Your task to perform on an android device: change keyboard looks Image 0: 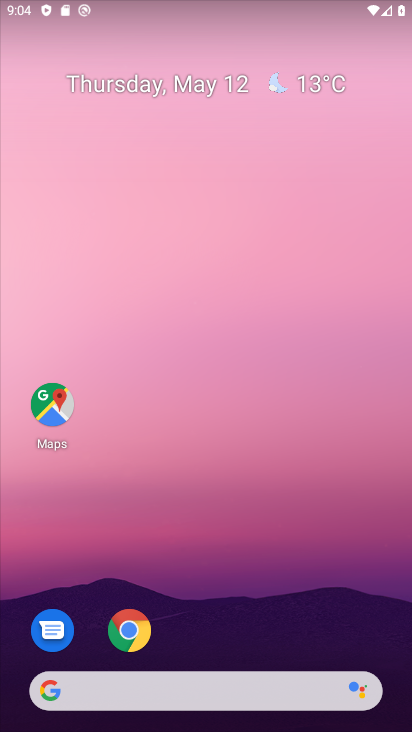
Step 0: drag from (212, 692) to (227, 207)
Your task to perform on an android device: change keyboard looks Image 1: 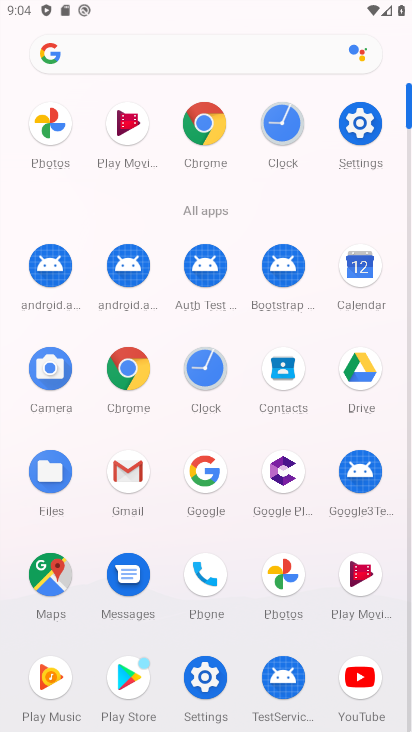
Step 1: click (201, 670)
Your task to perform on an android device: change keyboard looks Image 2: 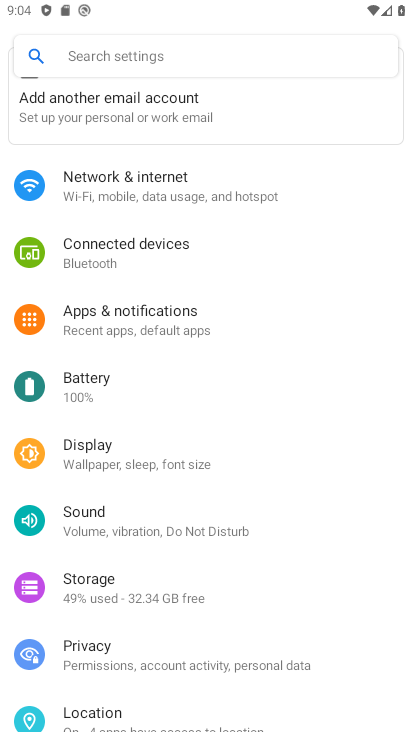
Step 2: drag from (186, 661) to (221, 250)
Your task to perform on an android device: change keyboard looks Image 3: 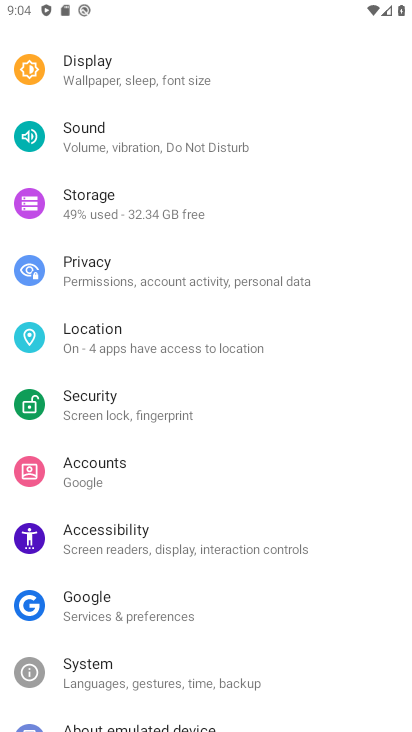
Step 3: click (105, 695)
Your task to perform on an android device: change keyboard looks Image 4: 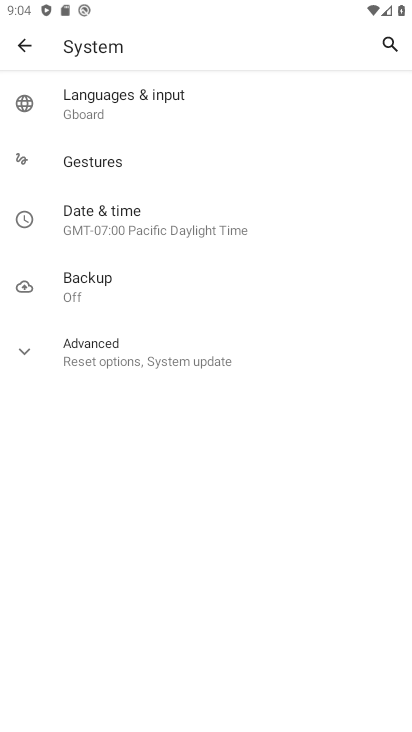
Step 4: click (107, 109)
Your task to perform on an android device: change keyboard looks Image 5: 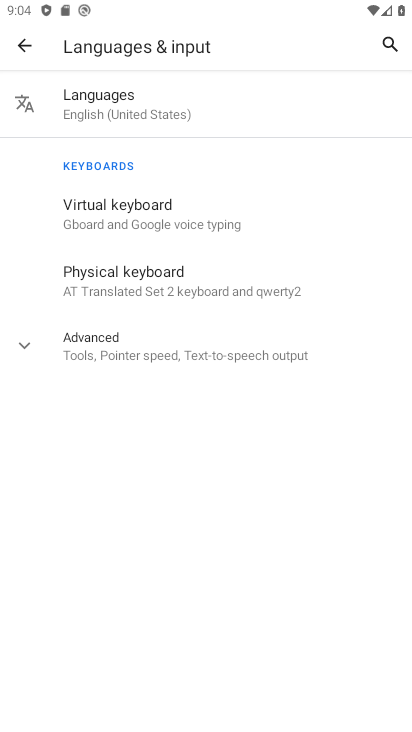
Step 5: click (169, 210)
Your task to perform on an android device: change keyboard looks Image 6: 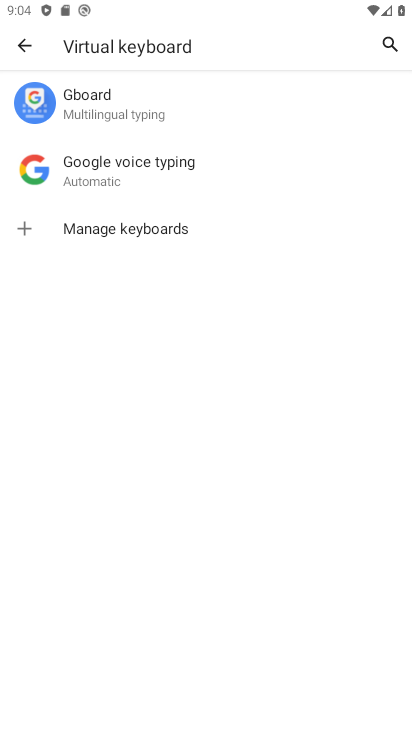
Step 6: click (91, 93)
Your task to perform on an android device: change keyboard looks Image 7: 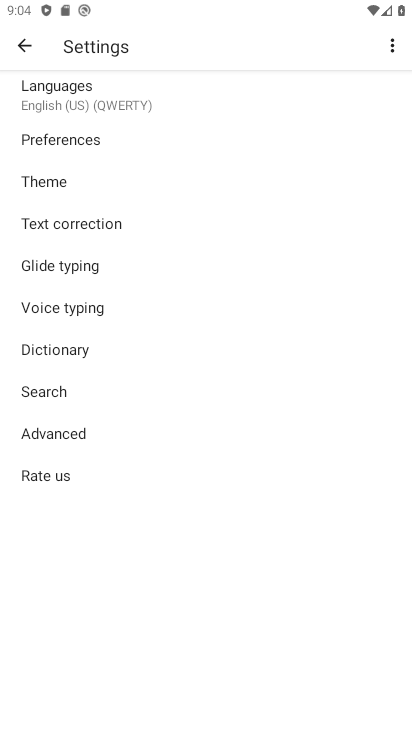
Step 7: click (97, 163)
Your task to perform on an android device: change keyboard looks Image 8: 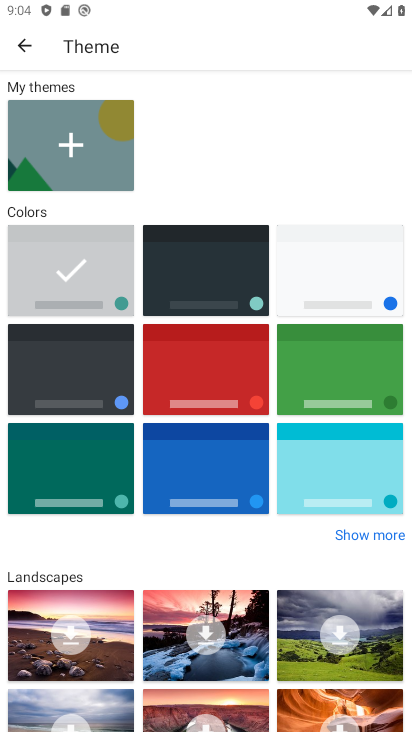
Step 8: click (191, 322)
Your task to perform on an android device: change keyboard looks Image 9: 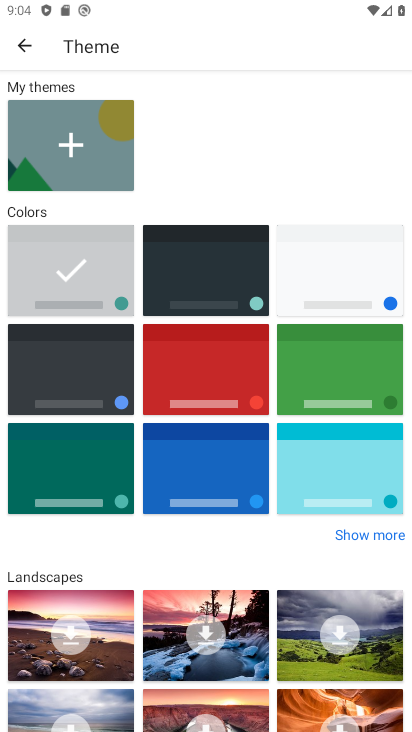
Step 9: click (92, 500)
Your task to perform on an android device: change keyboard looks Image 10: 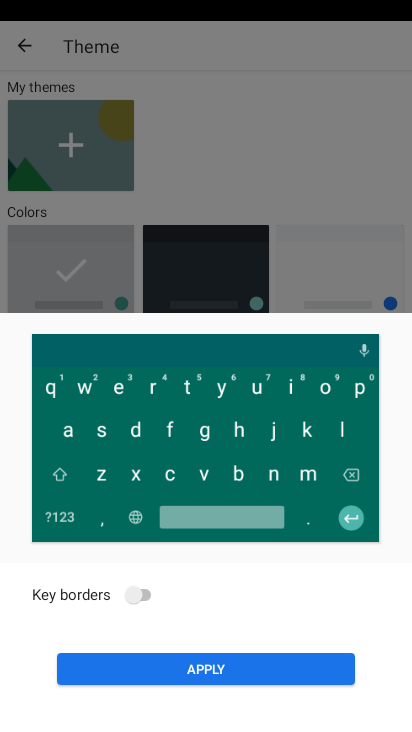
Step 10: click (227, 664)
Your task to perform on an android device: change keyboard looks Image 11: 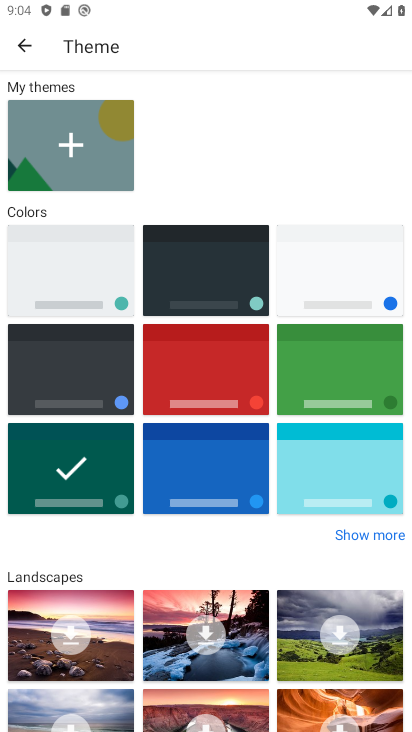
Step 11: task complete